Your task to perform on an android device: open device folders in google photos Image 0: 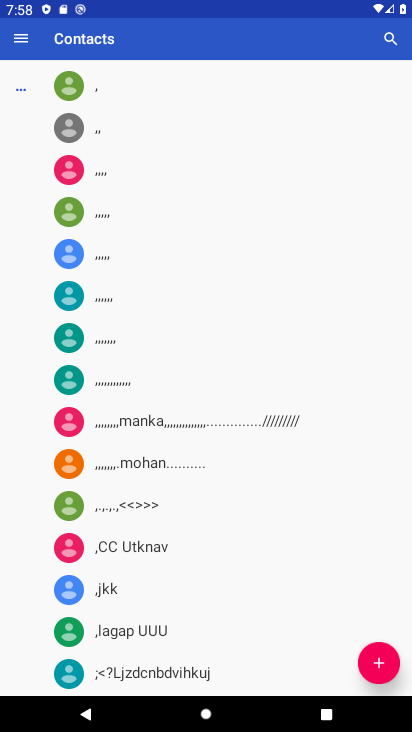
Step 0: press home button
Your task to perform on an android device: open device folders in google photos Image 1: 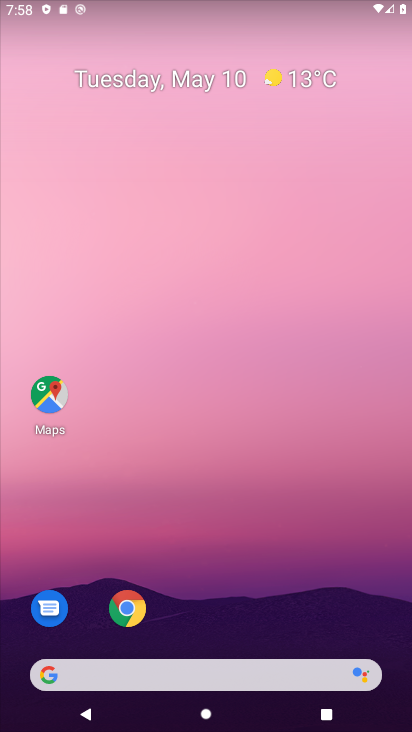
Step 1: drag from (183, 678) to (300, 270)
Your task to perform on an android device: open device folders in google photos Image 2: 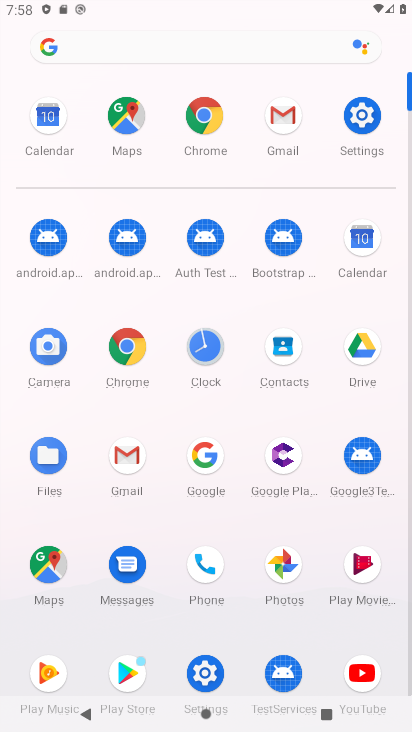
Step 2: click (289, 561)
Your task to perform on an android device: open device folders in google photos Image 3: 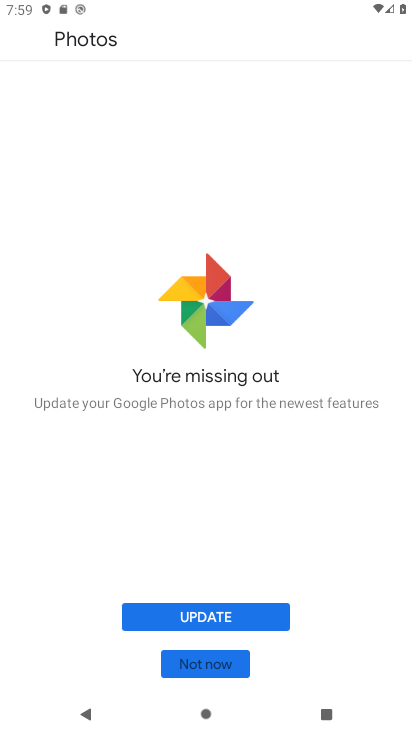
Step 3: click (205, 615)
Your task to perform on an android device: open device folders in google photos Image 4: 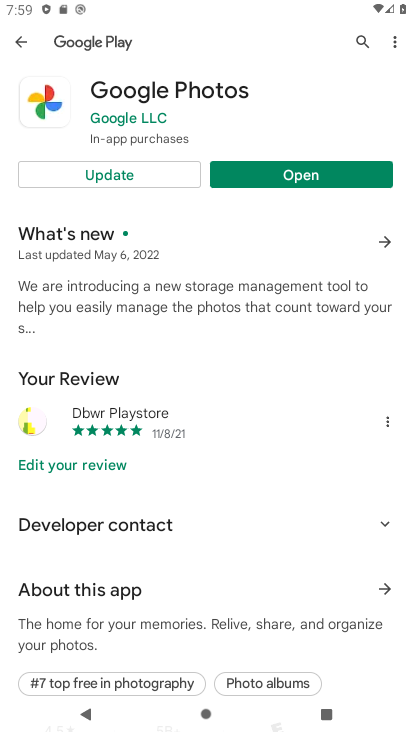
Step 4: click (288, 178)
Your task to perform on an android device: open device folders in google photos Image 5: 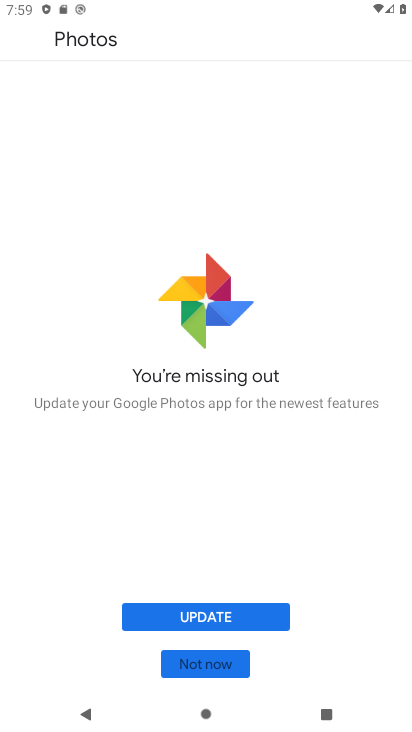
Step 5: click (209, 619)
Your task to perform on an android device: open device folders in google photos Image 6: 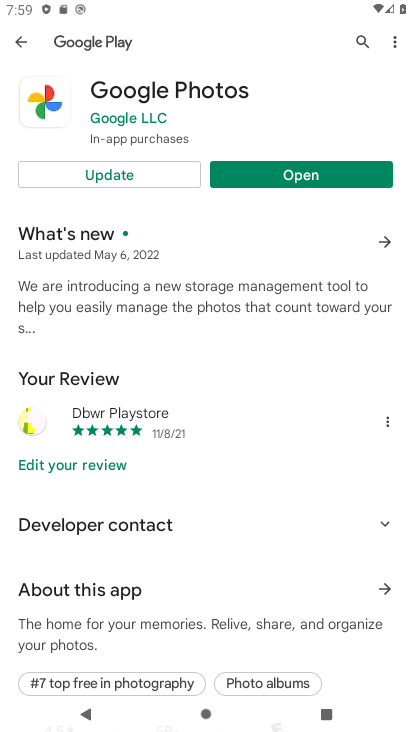
Step 6: click (152, 171)
Your task to perform on an android device: open device folders in google photos Image 7: 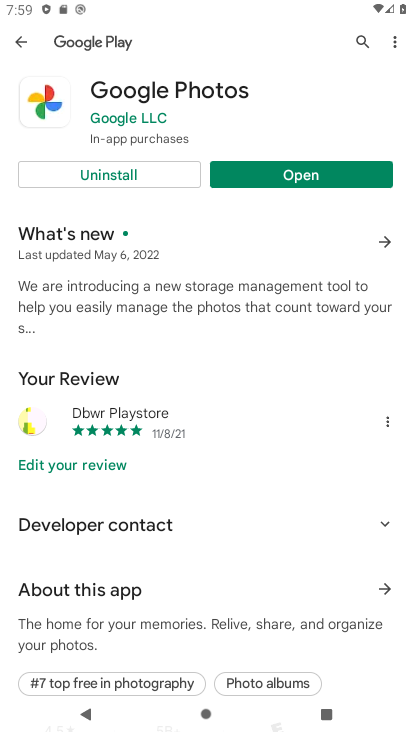
Step 7: click (291, 176)
Your task to perform on an android device: open device folders in google photos Image 8: 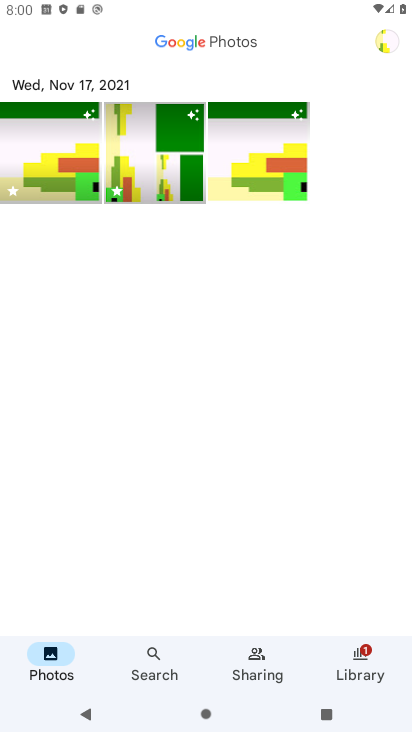
Step 8: click (359, 659)
Your task to perform on an android device: open device folders in google photos Image 9: 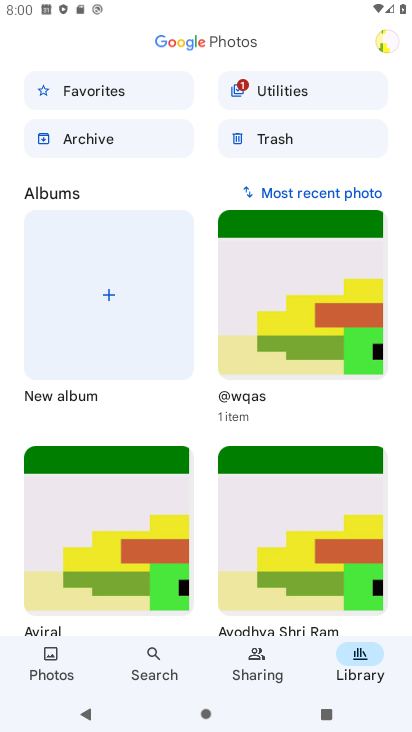
Step 9: task complete